Your task to perform on an android device: Open location settings Image 0: 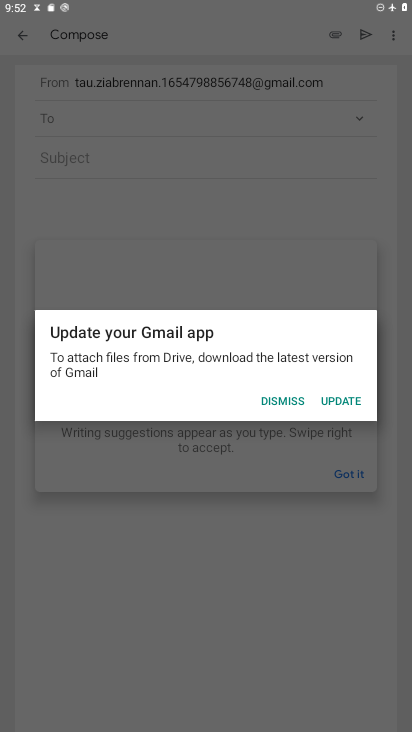
Step 0: press home button
Your task to perform on an android device: Open location settings Image 1: 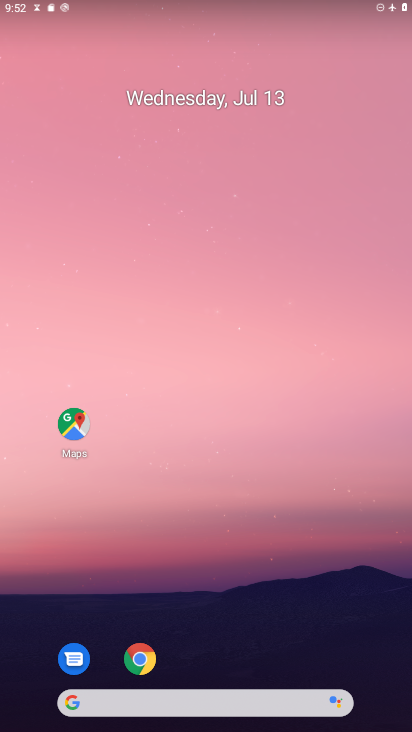
Step 1: drag from (209, 691) to (222, 133)
Your task to perform on an android device: Open location settings Image 2: 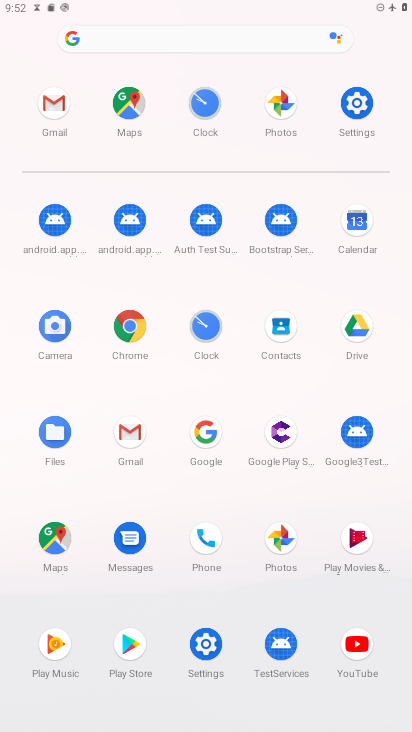
Step 2: click (340, 125)
Your task to perform on an android device: Open location settings Image 3: 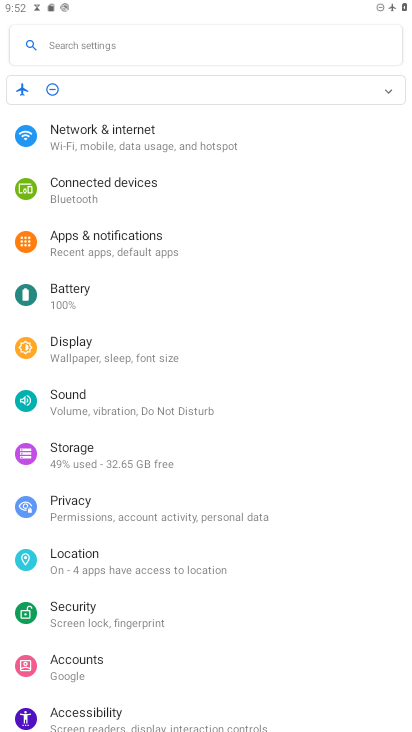
Step 3: click (104, 551)
Your task to perform on an android device: Open location settings Image 4: 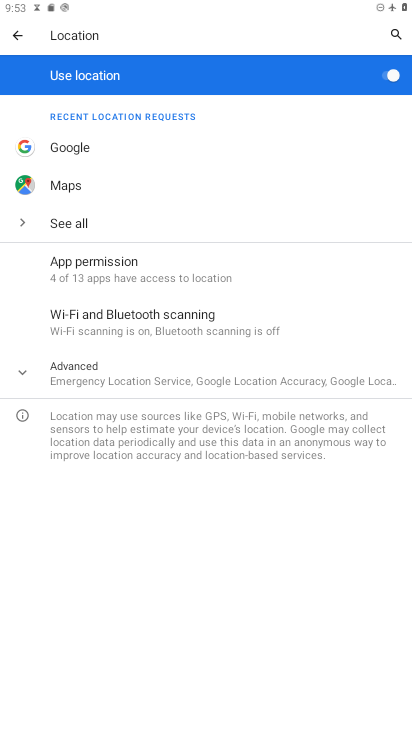
Step 4: task complete